Your task to perform on an android device: turn on location history Image 0: 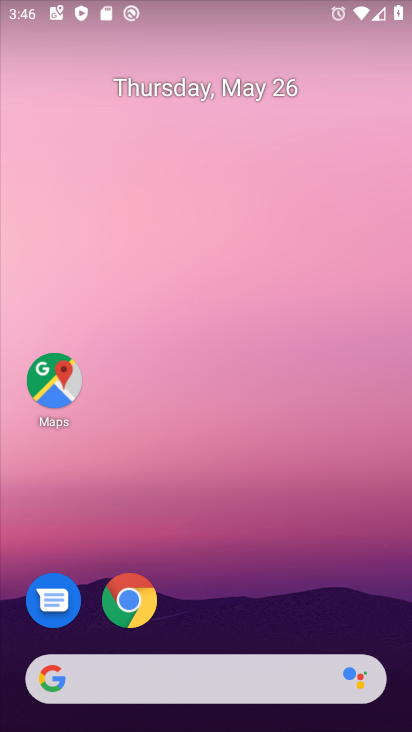
Step 0: drag from (204, 624) to (209, 5)
Your task to perform on an android device: turn on location history Image 1: 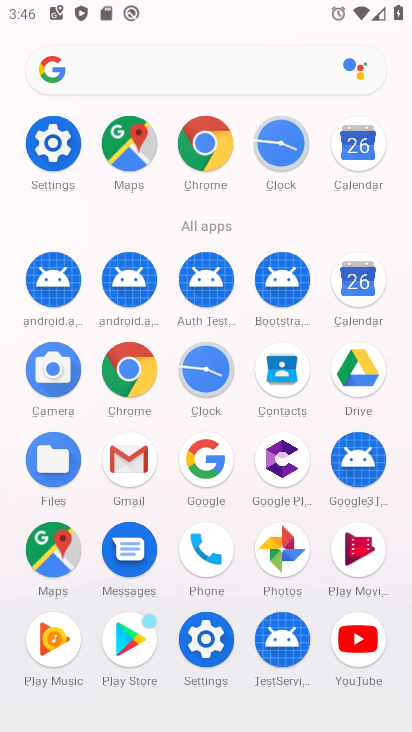
Step 1: click (47, 164)
Your task to perform on an android device: turn on location history Image 2: 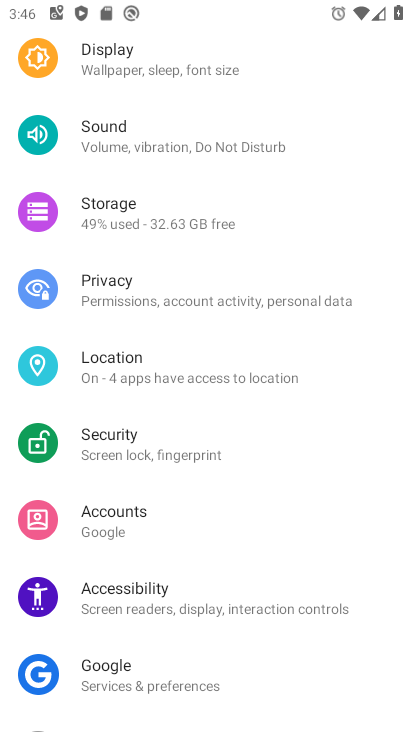
Step 2: drag from (176, 186) to (171, 456)
Your task to perform on an android device: turn on location history Image 3: 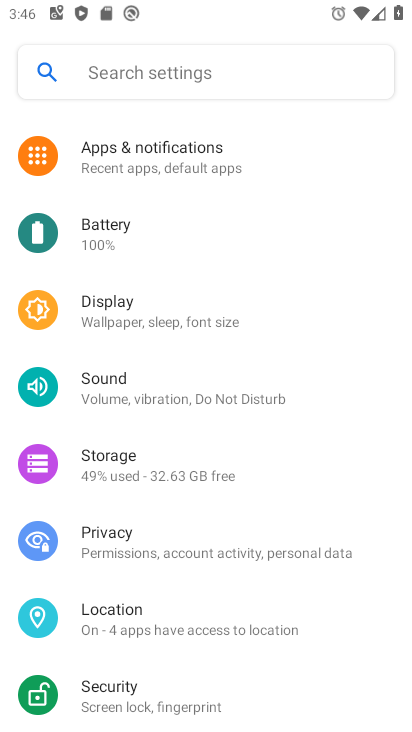
Step 3: click (154, 625)
Your task to perform on an android device: turn on location history Image 4: 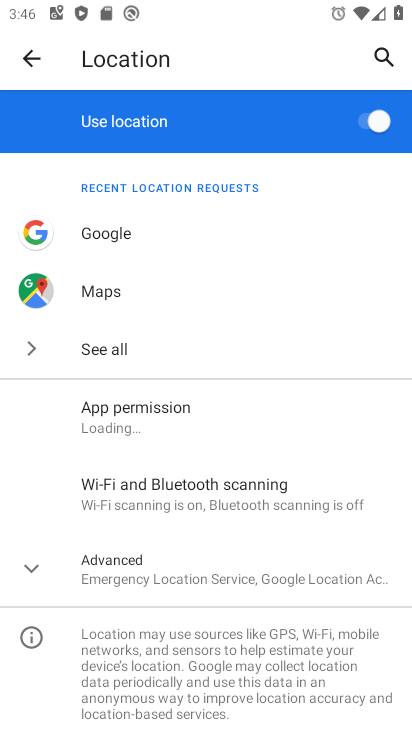
Step 4: click (153, 568)
Your task to perform on an android device: turn on location history Image 5: 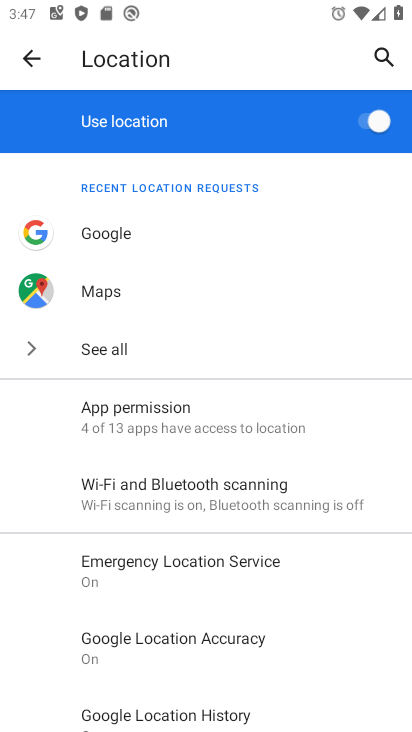
Step 5: drag from (174, 638) to (197, 532)
Your task to perform on an android device: turn on location history Image 6: 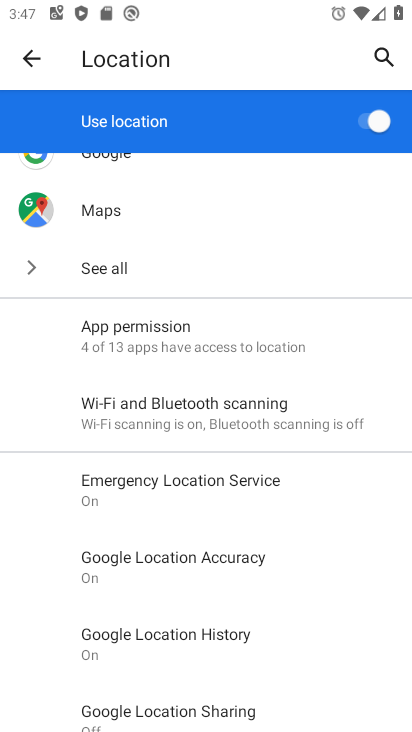
Step 6: click (163, 640)
Your task to perform on an android device: turn on location history Image 7: 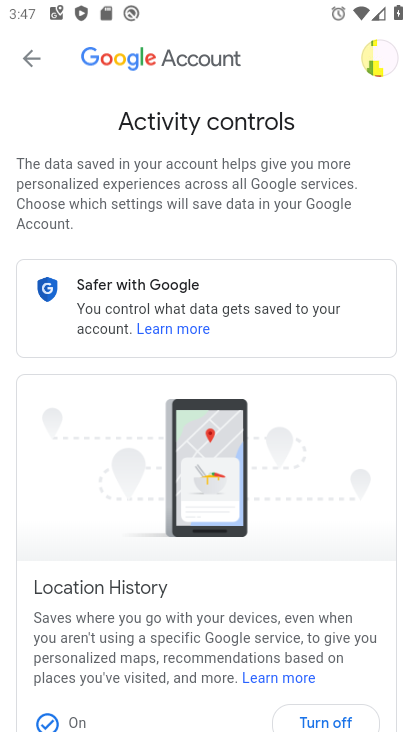
Step 7: task complete